Your task to perform on an android device: toggle priority inbox in the gmail app Image 0: 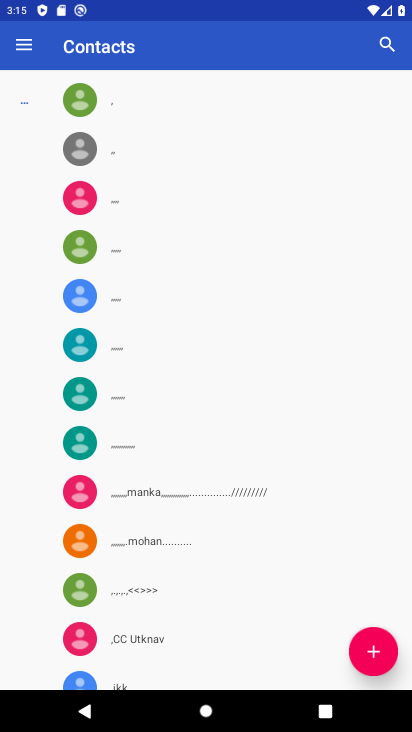
Step 0: press home button
Your task to perform on an android device: toggle priority inbox in the gmail app Image 1: 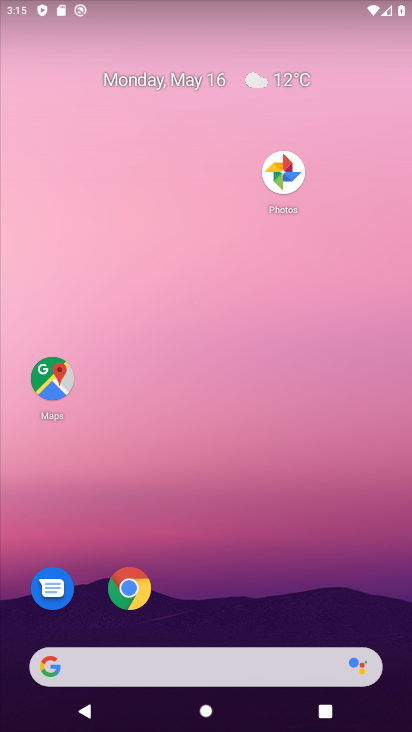
Step 1: drag from (192, 636) to (197, 53)
Your task to perform on an android device: toggle priority inbox in the gmail app Image 2: 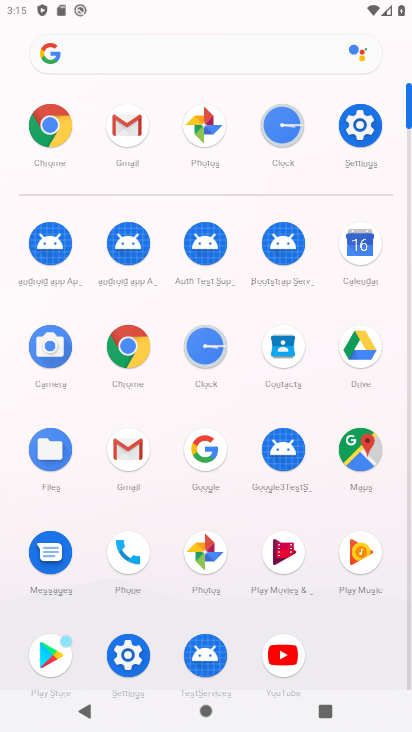
Step 2: click (126, 140)
Your task to perform on an android device: toggle priority inbox in the gmail app Image 3: 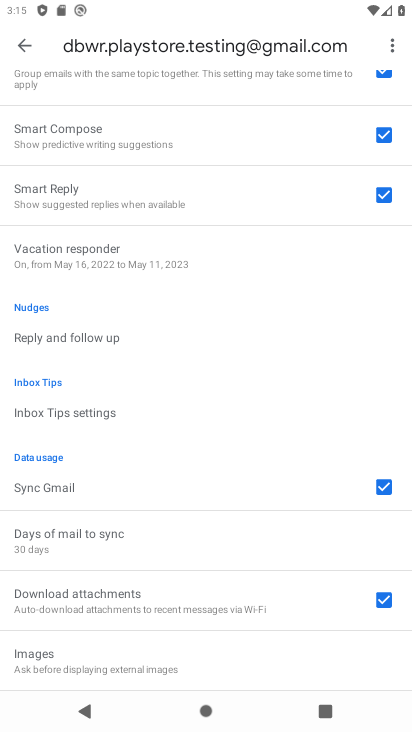
Step 3: drag from (126, 140) to (194, 536)
Your task to perform on an android device: toggle priority inbox in the gmail app Image 4: 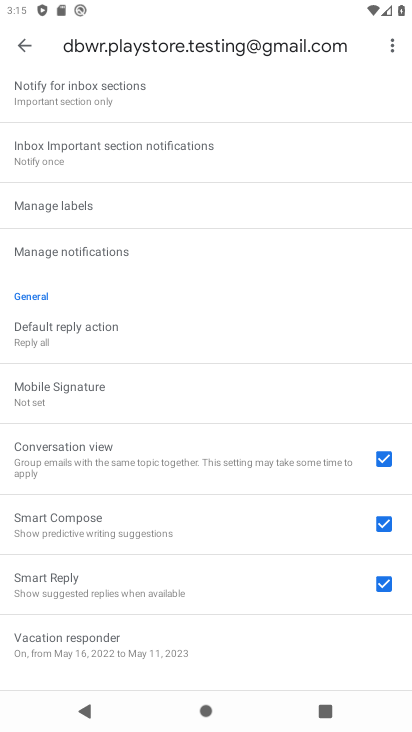
Step 4: drag from (110, 157) to (131, 387)
Your task to perform on an android device: toggle priority inbox in the gmail app Image 5: 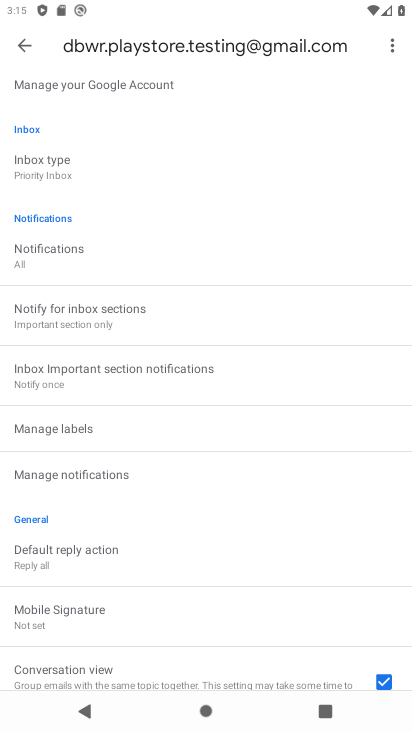
Step 5: click (65, 169)
Your task to perform on an android device: toggle priority inbox in the gmail app Image 6: 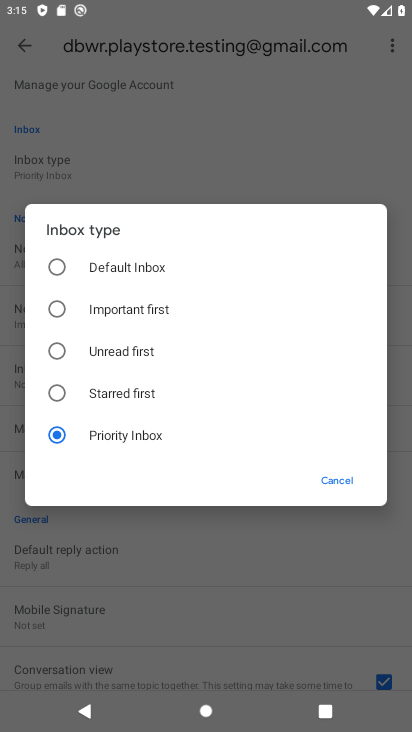
Step 6: click (91, 340)
Your task to perform on an android device: toggle priority inbox in the gmail app Image 7: 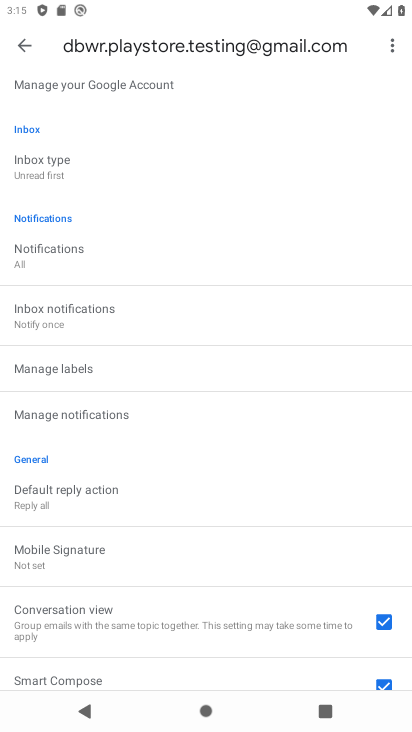
Step 7: task complete